Your task to perform on an android device: all mails in gmail Image 0: 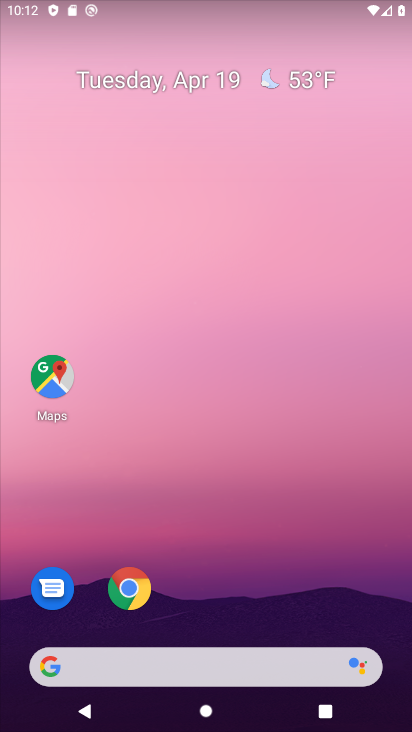
Step 0: click (149, 207)
Your task to perform on an android device: all mails in gmail Image 1: 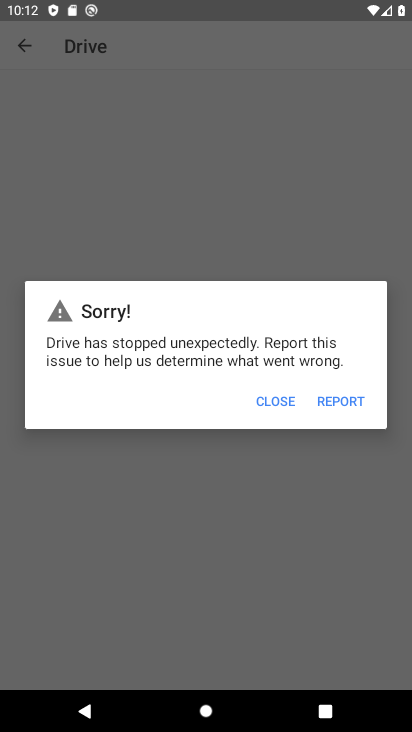
Step 1: press home button
Your task to perform on an android device: all mails in gmail Image 2: 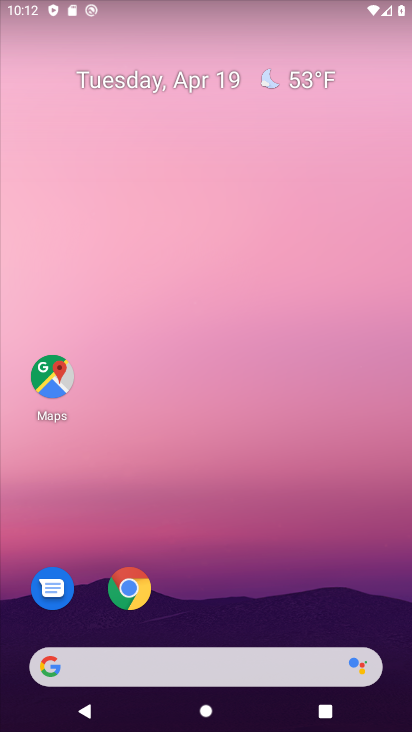
Step 2: drag from (202, 671) to (109, 233)
Your task to perform on an android device: all mails in gmail Image 3: 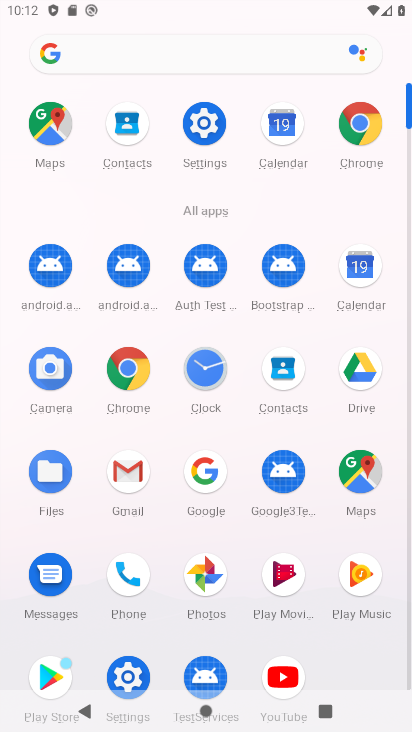
Step 3: click (118, 459)
Your task to perform on an android device: all mails in gmail Image 4: 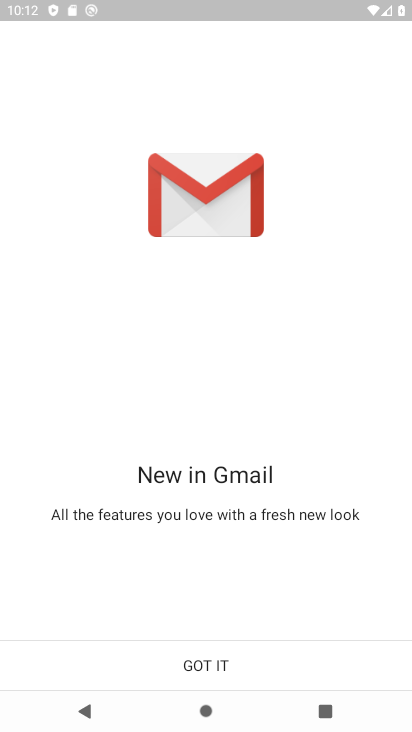
Step 4: click (238, 654)
Your task to perform on an android device: all mails in gmail Image 5: 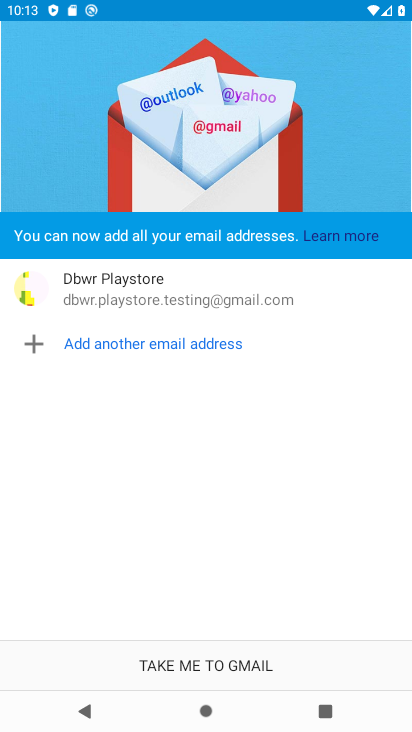
Step 5: click (238, 654)
Your task to perform on an android device: all mails in gmail Image 6: 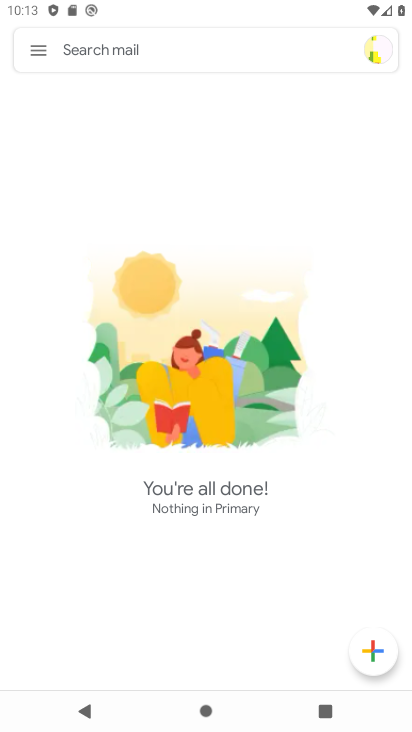
Step 6: click (33, 50)
Your task to perform on an android device: all mails in gmail Image 7: 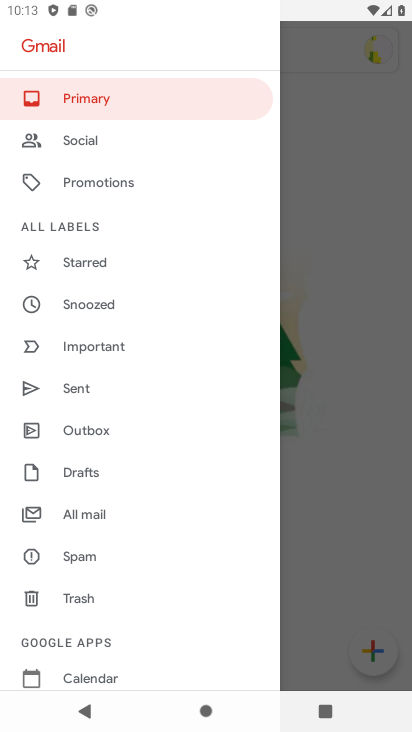
Step 7: click (115, 516)
Your task to perform on an android device: all mails in gmail Image 8: 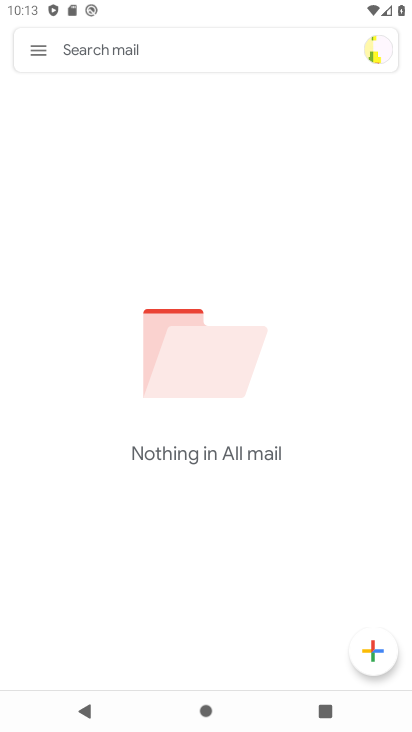
Step 8: task complete